Your task to perform on an android device: Open location settings Image 0: 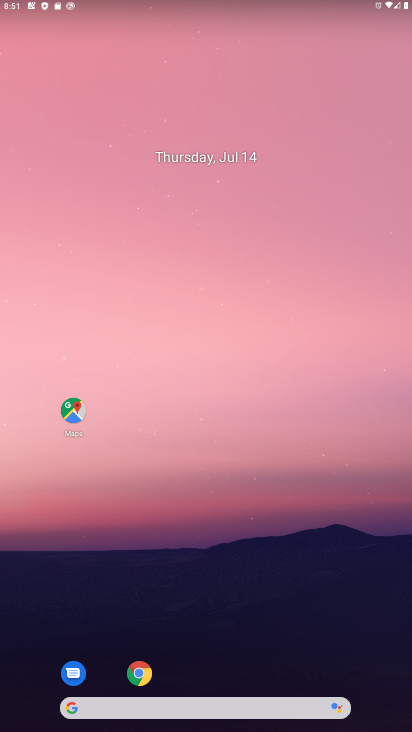
Step 0: drag from (214, 710) to (154, 161)
Your task to perform on an android device: Open location settings Image 1: 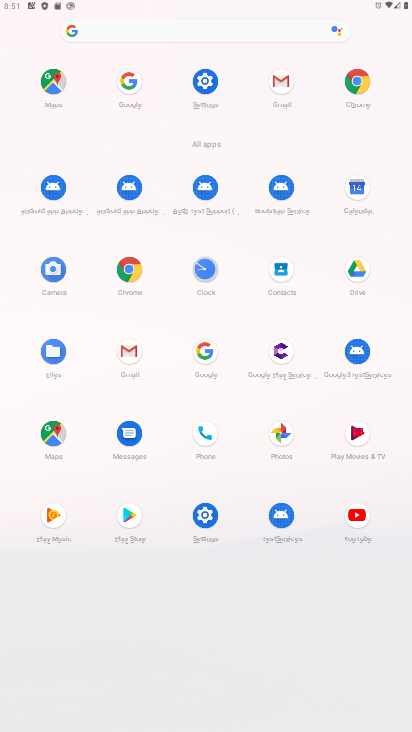
Step 1: click (205, 81)
Your task to perform on an android device: Open location settings Image 2: 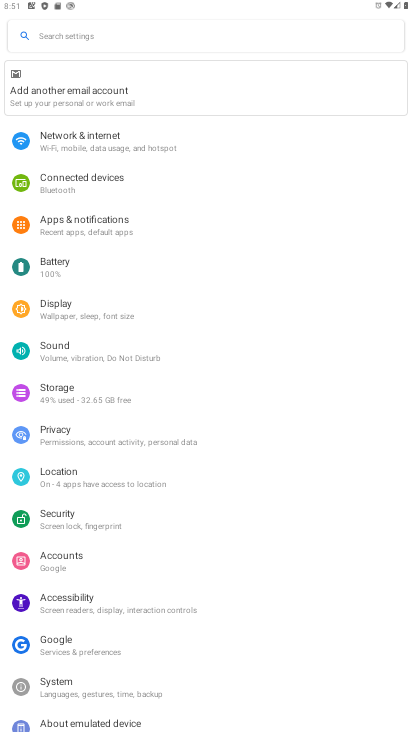
Step 2: click (66, 479)
Your task to perform on an android device: Open location settings Image 3: 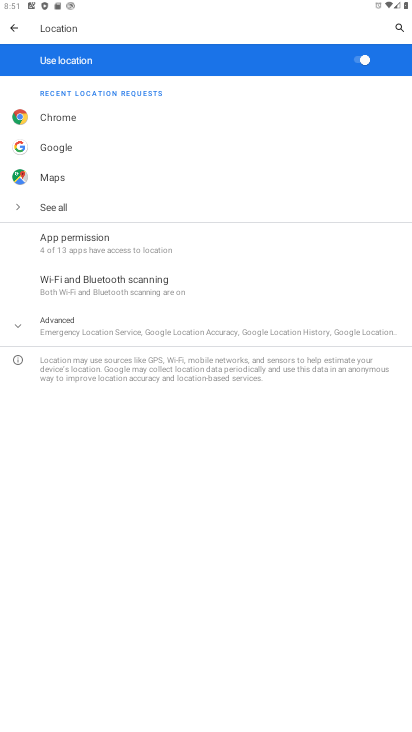
Step 3: task complete